Your task to perform on an android device: What's on my calendar today? Image 0: 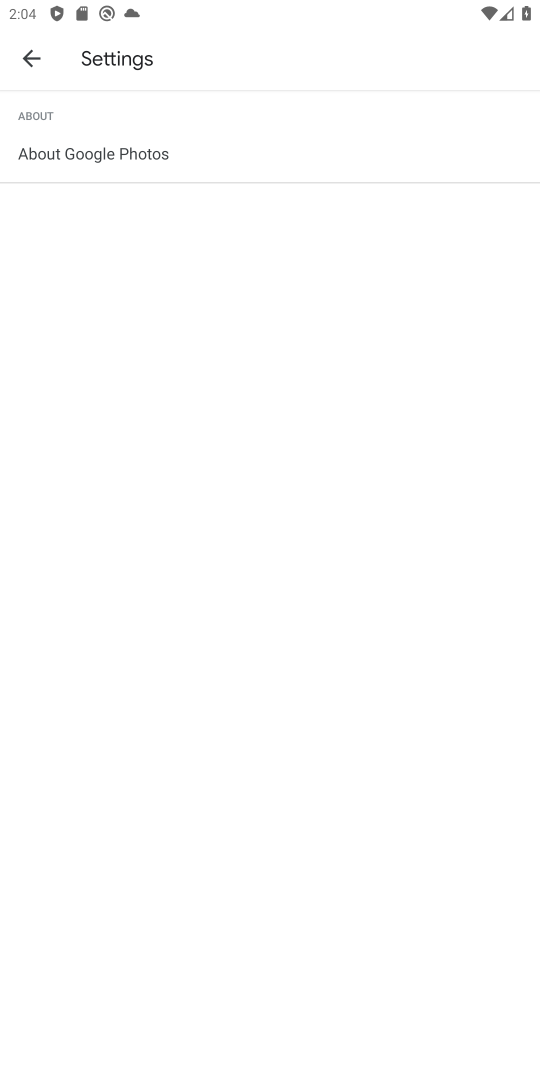
Step 0: press home button
Your task to perform on an android device: What's on my calendar today? Image 1: 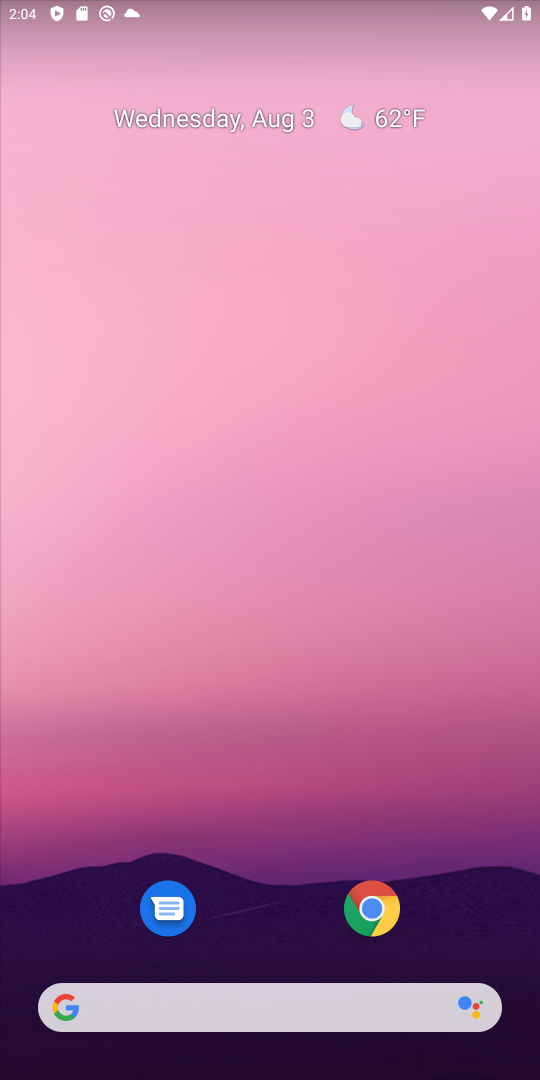
Step 1: drag from (310, 494) to (383, 260)
Your task to perform on an android device: What's on my calendar today? Image 2: 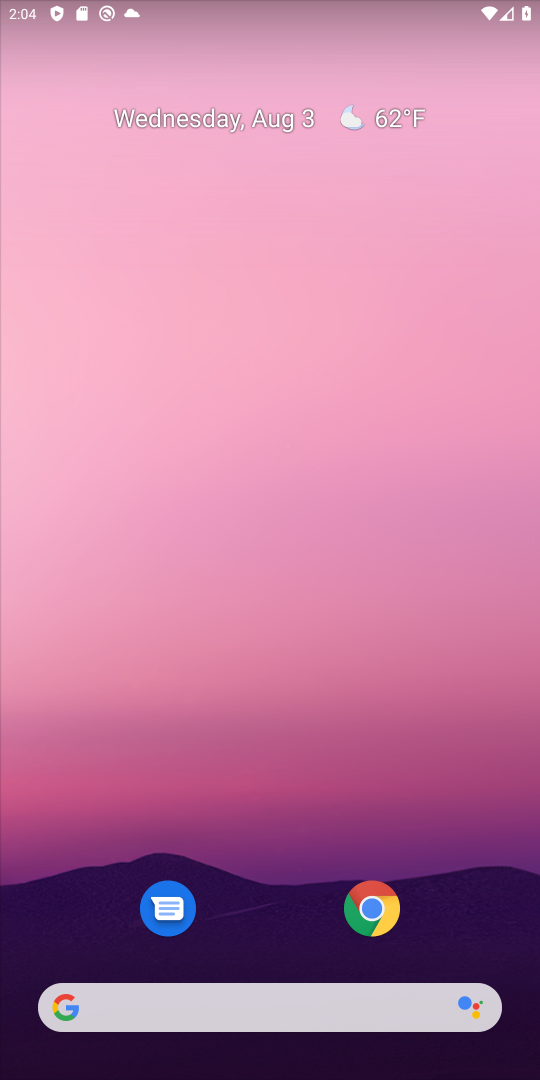
Step 2: drag from (264, 1050) to (338, 47)
Your task to perform on an android device: What's on my calendar today? Image 3: 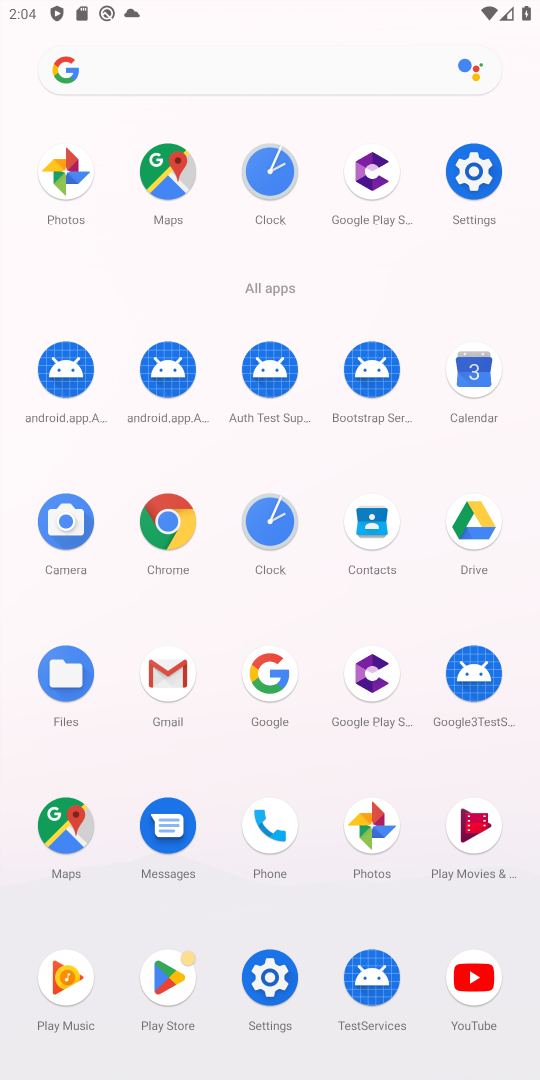
Step 3: click (477, 379)
Your task to perform on an android device: What's on my calendar today? Image 4: 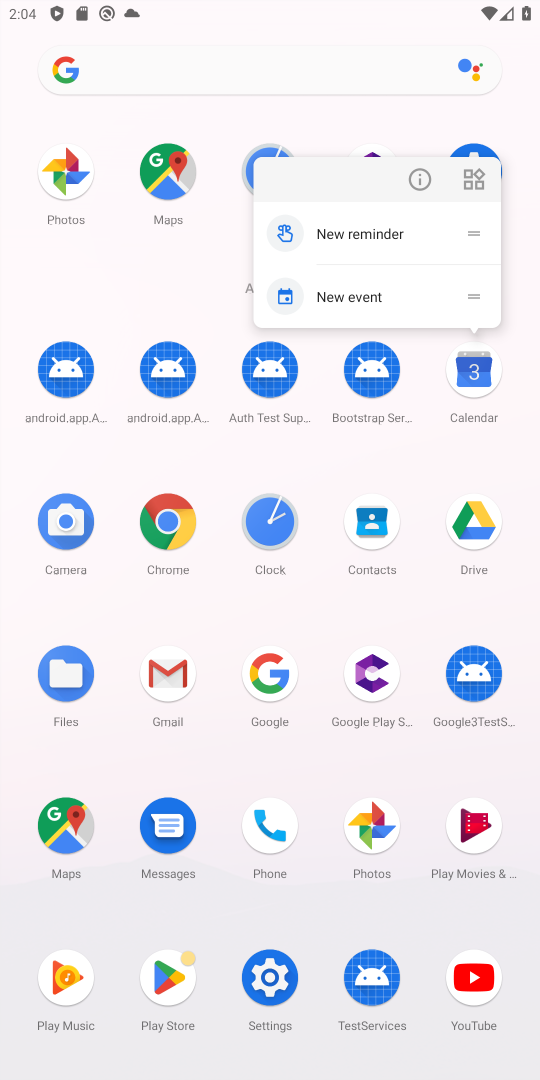
Step 4: click (477, 379)
Your task to perform on an android device: What's on my calendar today? Image 5: 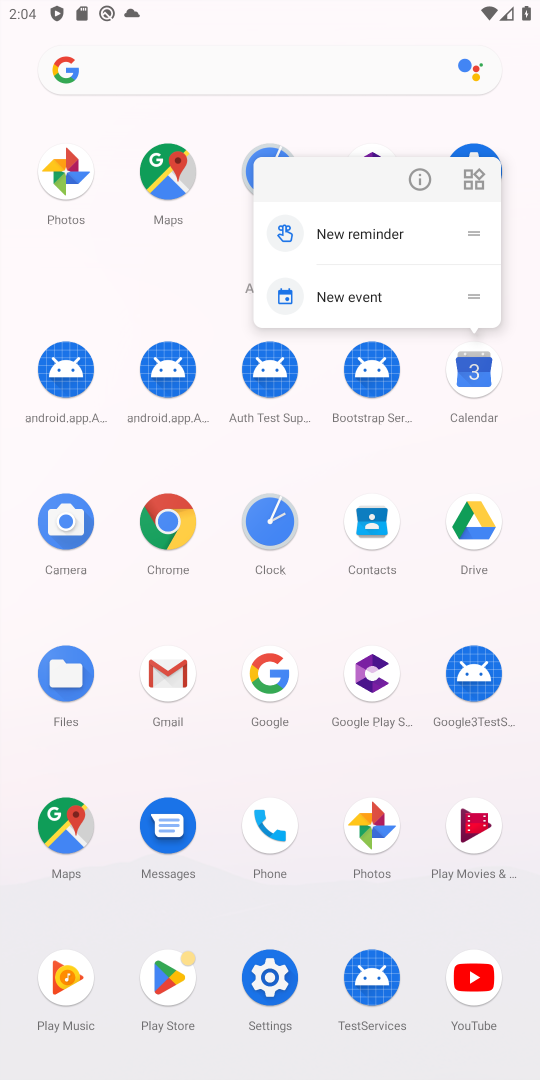
Step 5: click (477, 379)
Your task to perform on an android device: What's on my calendar today? Image 6: 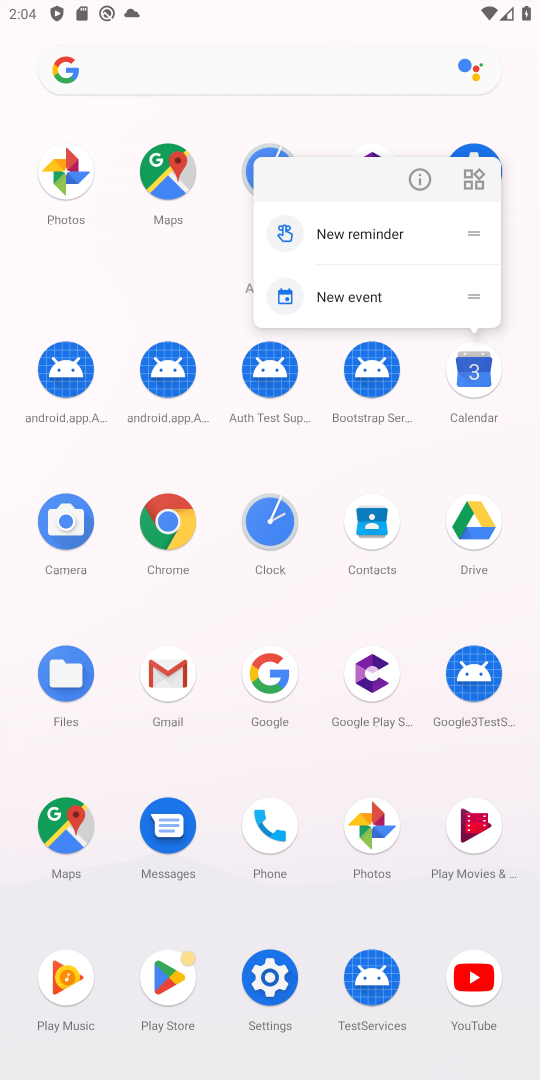
Step 6: click (469, 412)
Your task to perform on an android device: What's on my calendar today? Image 7: 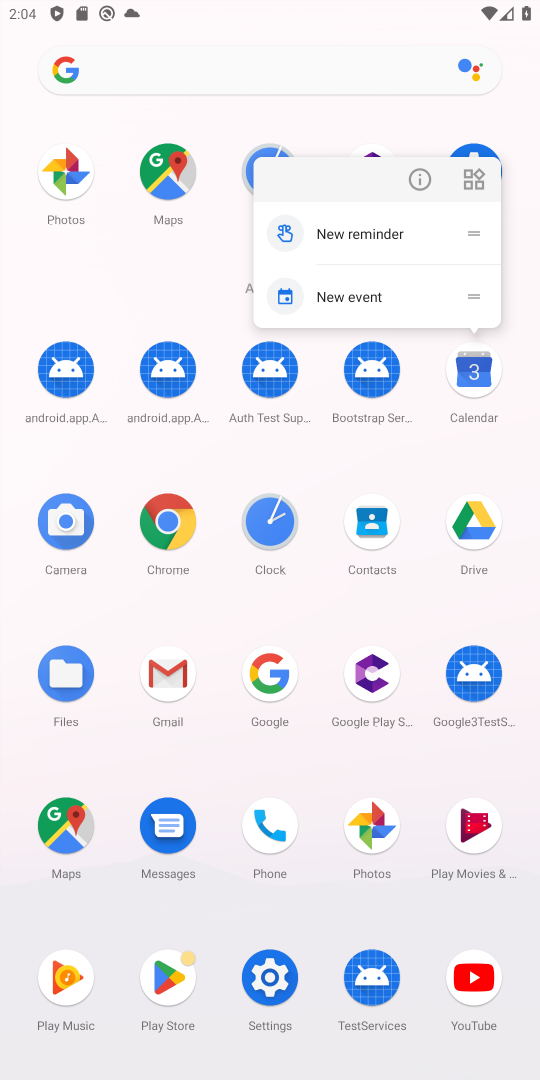
Step 7: click (475, 361)
Your task to perform on an android device: What's on my calendar today? Image 8: 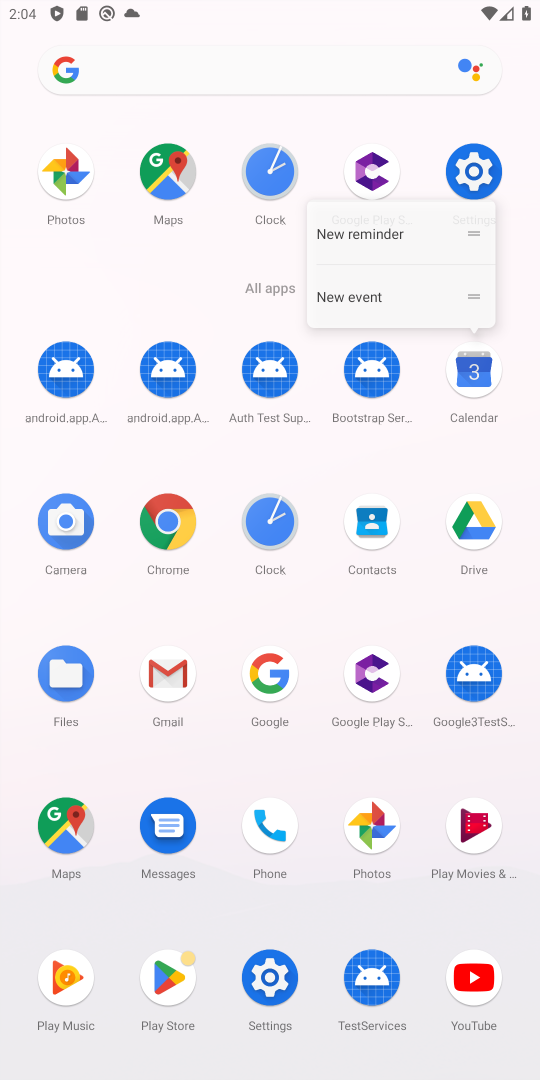
Step 8: click (463, 404)
Your task to perform on an android device: What's on my calendar today? Image 9: 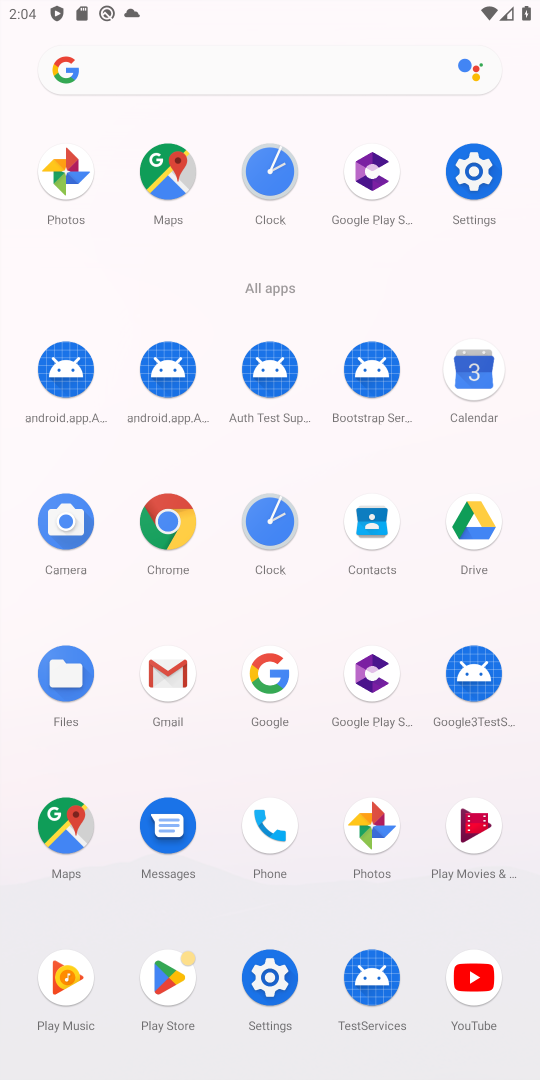
Step 9: click (465, 438)
Your task to perform on an android device: What's on my calendar today? Image 10: 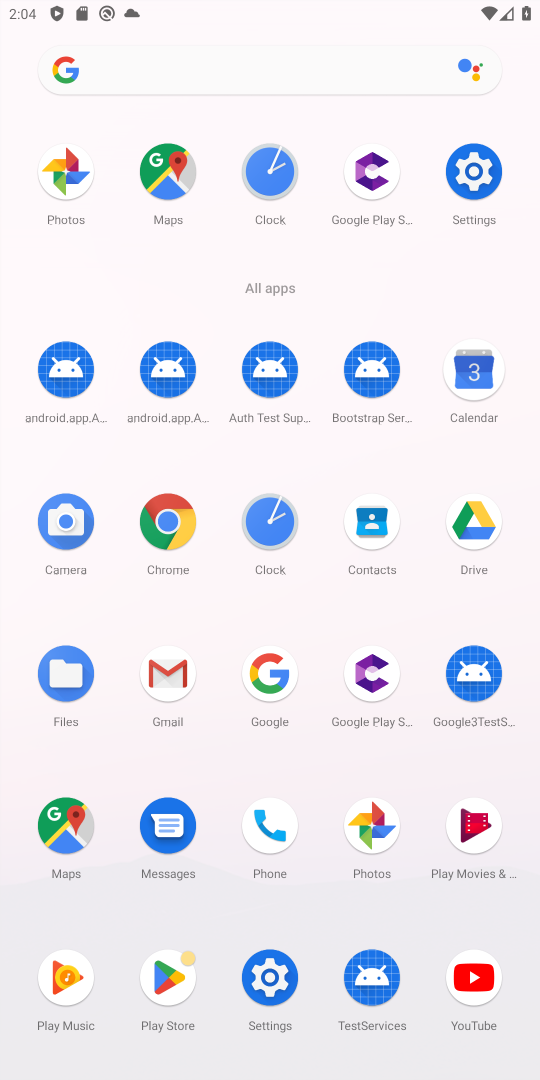
Step 10: click (495, 415)
Your task to perform on an android device: What's on my calendar today? Image 11: 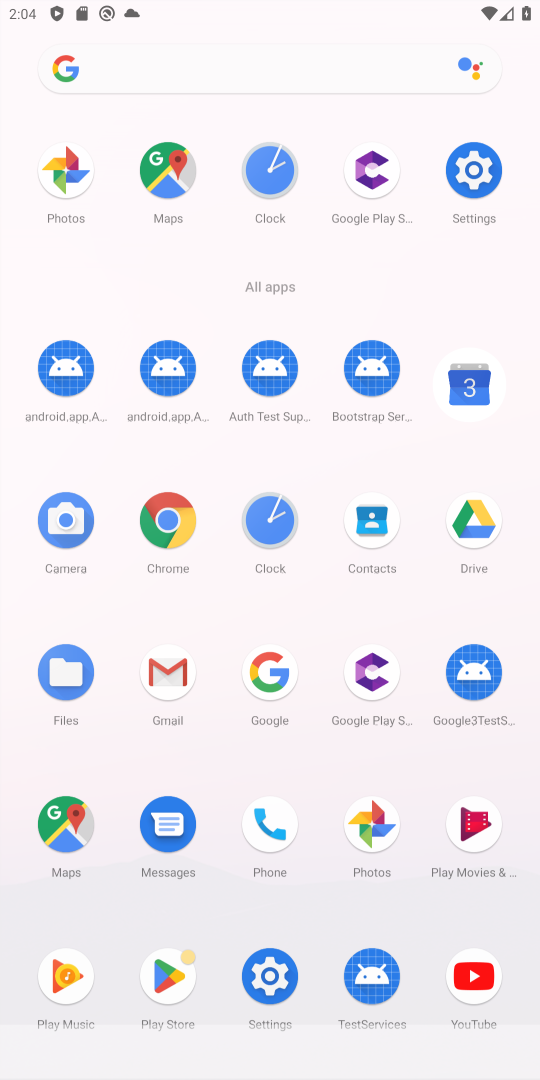
Step 11: click (462, 407)
Your task to perform on an android device: What's on my calendar today? Image 12: 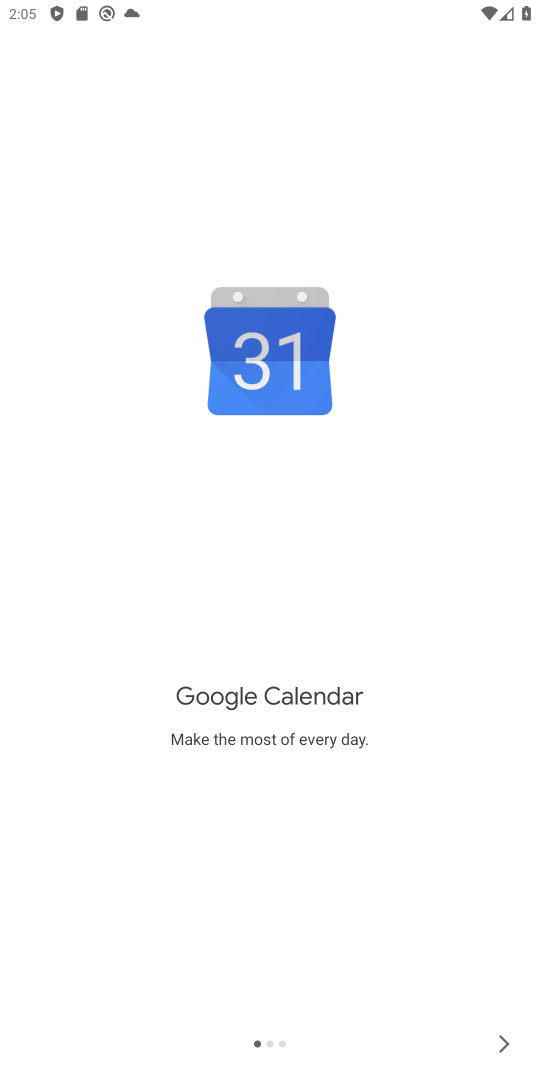
Step 12: click (508, 1021)
Your task to perform on an android device: What's on my calendar today? Image 13: 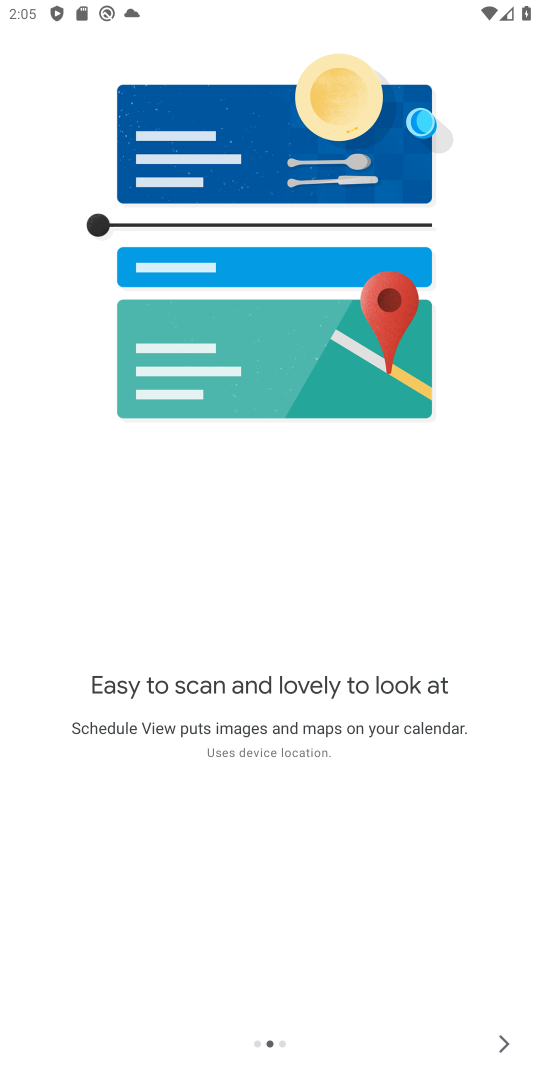
Step 13: click (498, 1049)
Your task to perform on an android device: What's on my calendar today? Image 14: 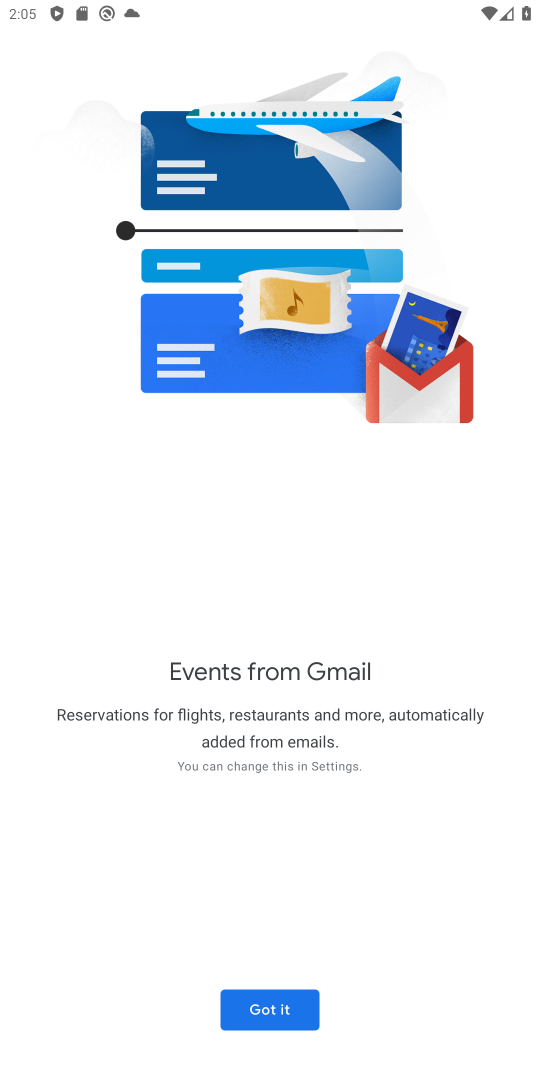
Step 14: click (283, 1017)
Your task to perform on an android device: What's on my calendar today? Image 15: 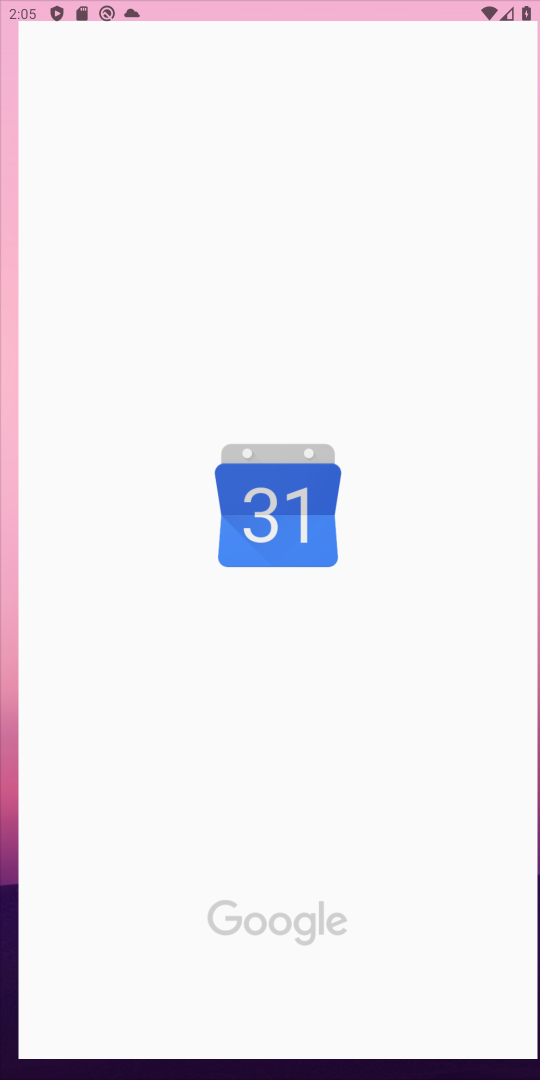
Step 15: click (283, 1017)
Your task to perform on an android device: What's on my calendar today? Image 16: 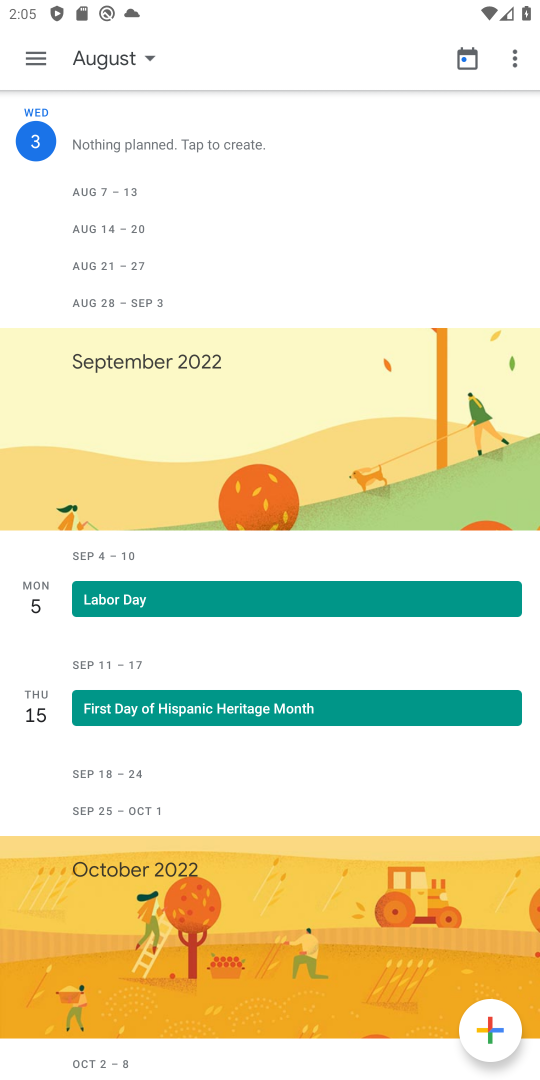
Step 16: task complete